Your task to perform on an android device: Is it going to rain today? Image 0: 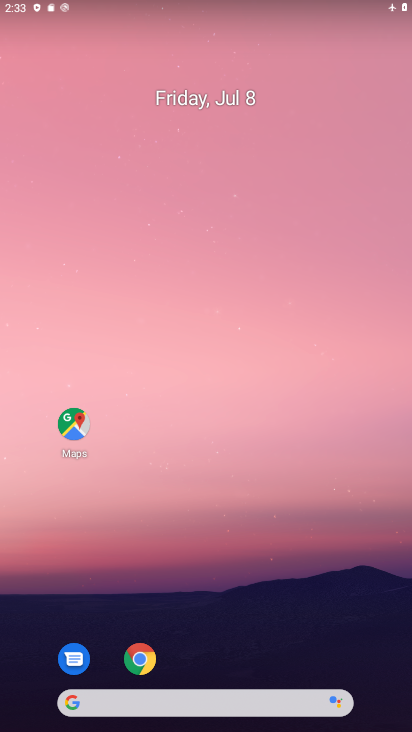
Step 0: drag from (230, 614) to (166, 27)
Your task to perform on an android device: Is it going to rain today? Image 1: 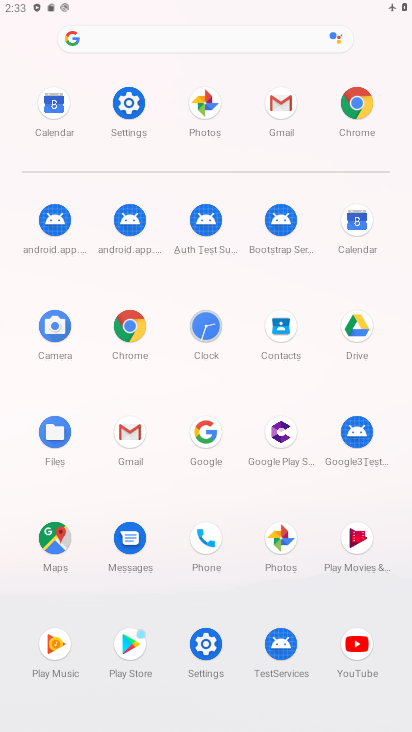
Step 1: click (132, 342)
Your task to perform on an android device: Is it going to rain today? Image 2: 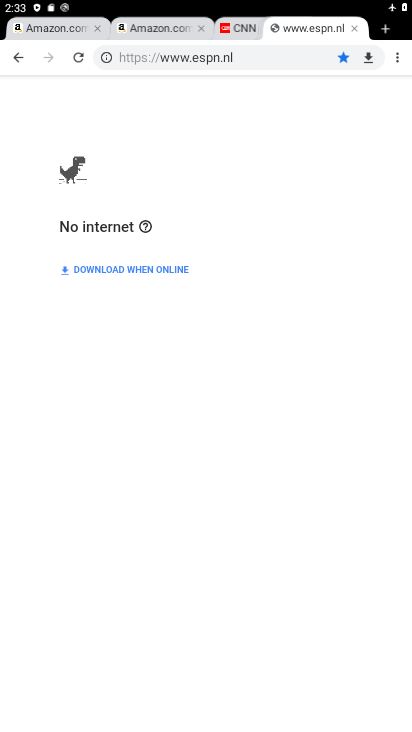
Step 2: click (391, 34)
Your task to perform on an android device: Is it going to rain today? Image 3: 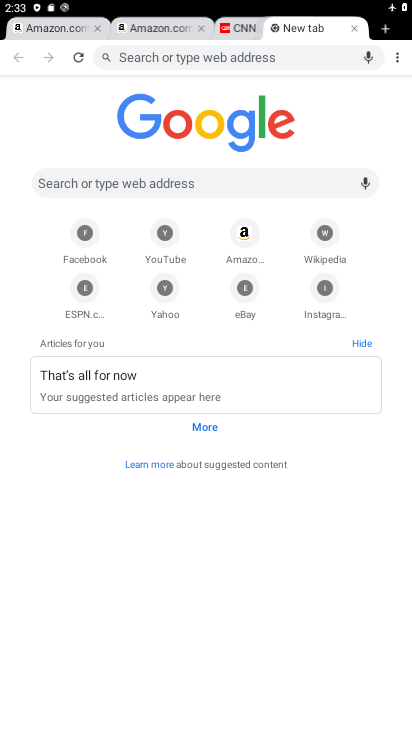
Step 3: click (156, 175)
Your task to perform on an android device: Is it going to rain today? Image 4: 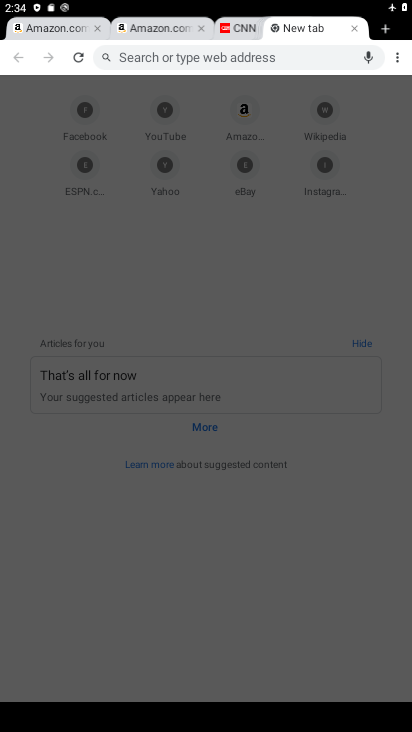
Step 4: type "weather"
Your task to perform on an android device: Is it going to rain today? Image 5: 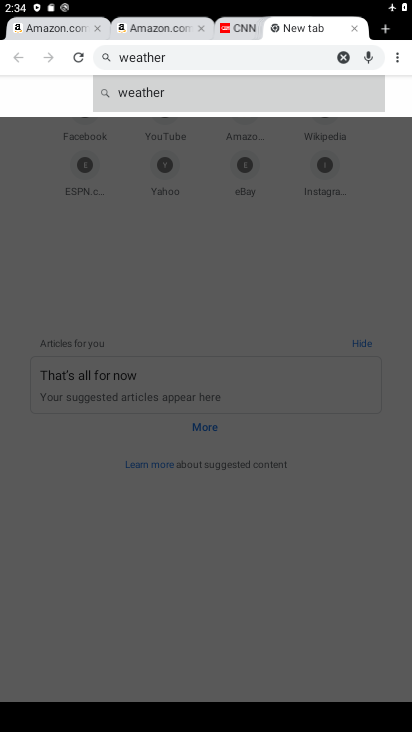
Step 5: click (168, 97)
Your task to perform on an android device: Is it going to rain today? Image 6: 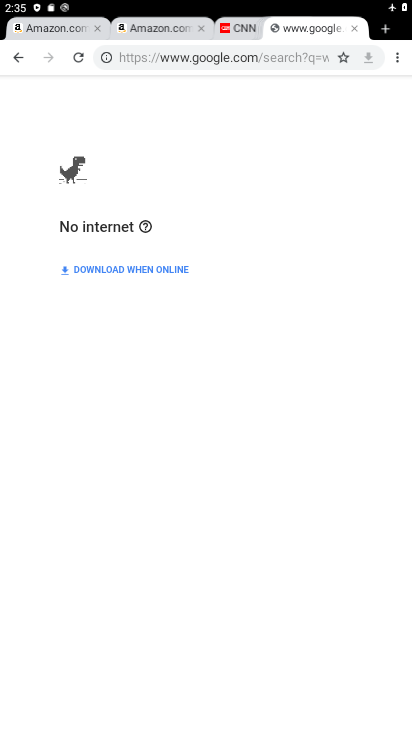
Step 6: task complete